Your task to perform on an android device: Show me recent news Image 0: 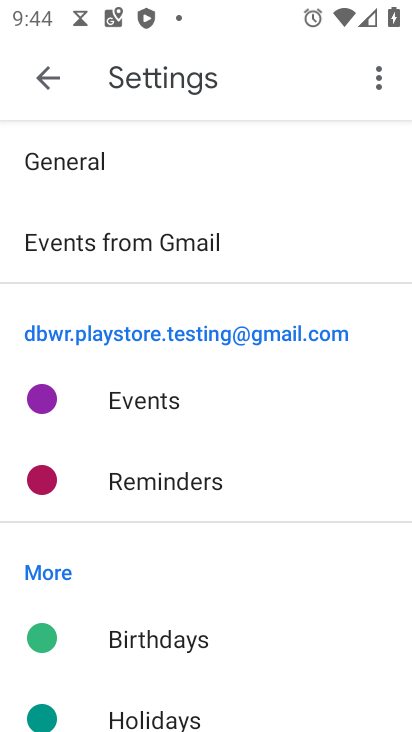
Step 0: click (37, 81)
Your task to perform on an android device: Show me recent news Image 1: 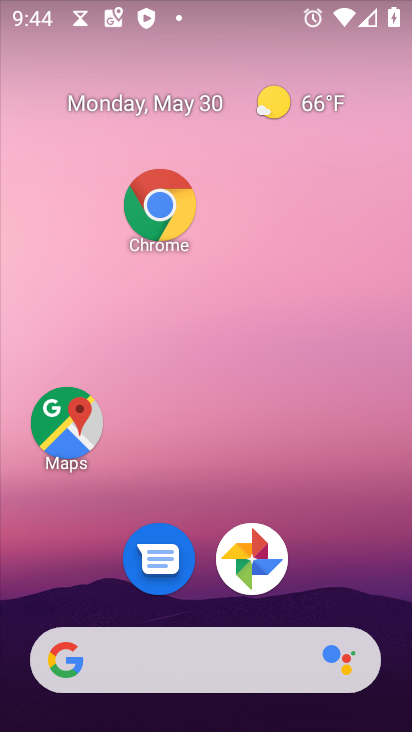
Step 1: task complete